Your task to perform on an android device: turn on sleep mode Image 0: 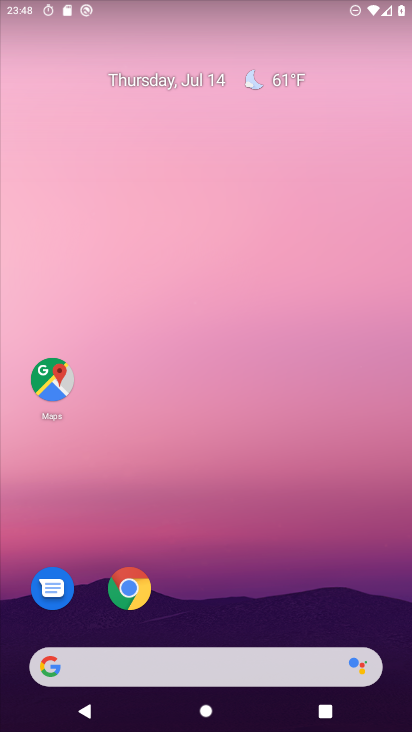
Step 0: drag from (200, 614) to (188, 0)
Your task to perform on an android device: turn on sleep mode Image 1: 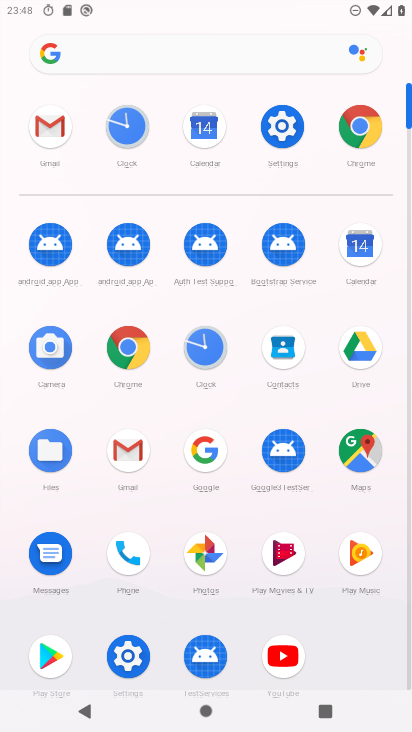
Step 1: click (281, 145)
Your task to perform on an android device: turn on sleep mode Image 2: 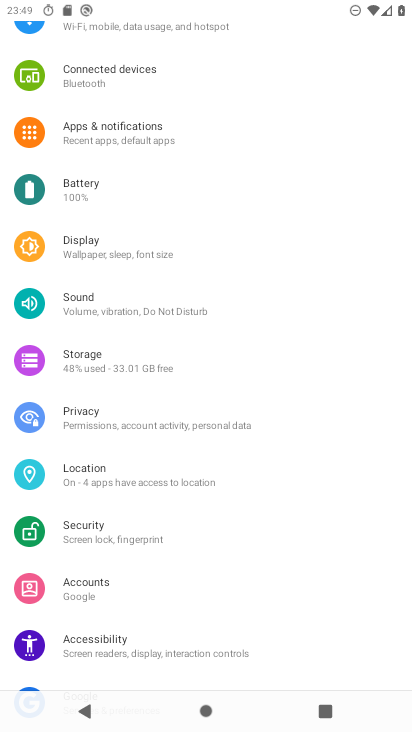
Step 2: drag from (222, 120) to (243, 587)
Your task to perform on an android device: turn on sleep mode Image 3: 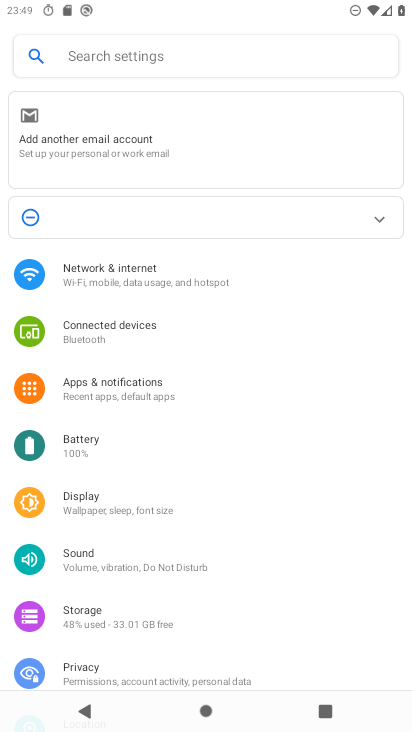
Step 3: click (193, 47)
Your task to perform on an android device: turn on sleep mode Image 4: 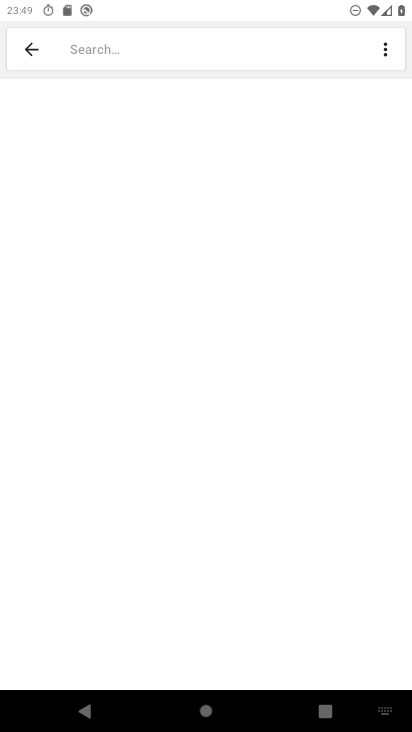
Step 4: type "sleep mode"
Your task to perform on an android device: turn on sleep mode Image 5: 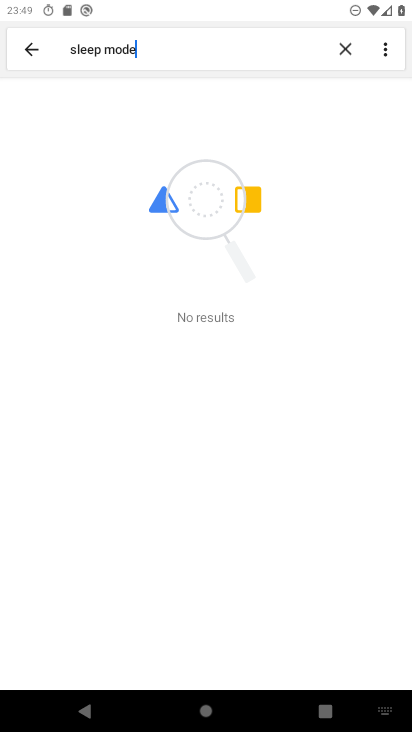
Step 5: task complete